Your task to perform on an android device: all mails in gmail Image 0: 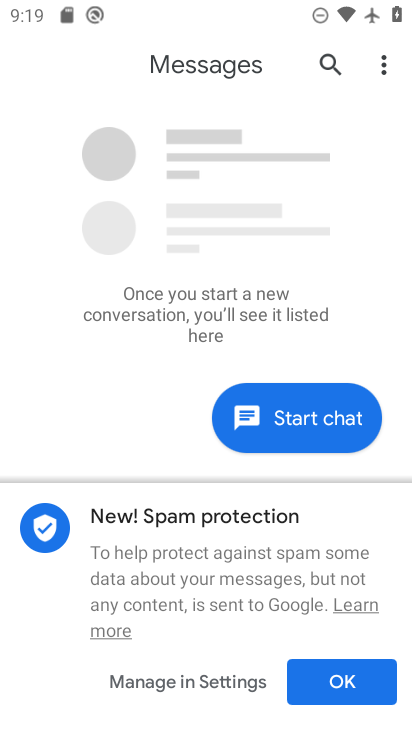
Step 0: press home button
Your task to perform on an android device: all mails in gmail Image 1: 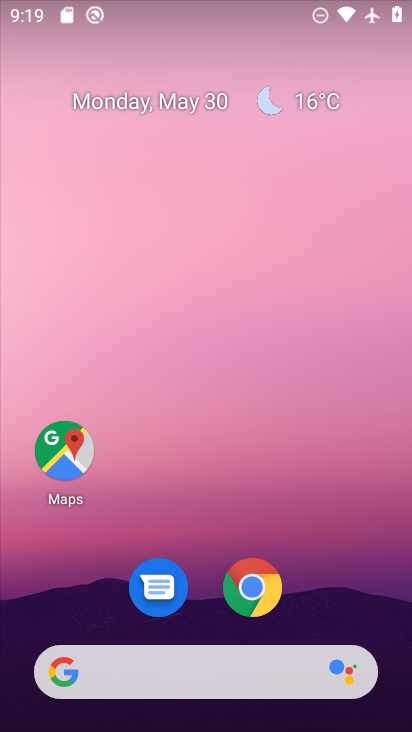
Step 1: drag from (181, 686) to (326, 94)
Your task to perform on an android device: all mails in gmail Image 2: 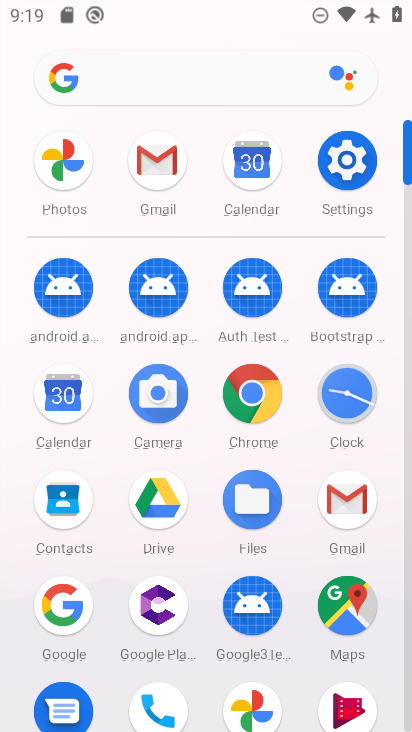
Step 2: click (157, 173)
Your task to perform on an android device: all mails in gmail Image 3: 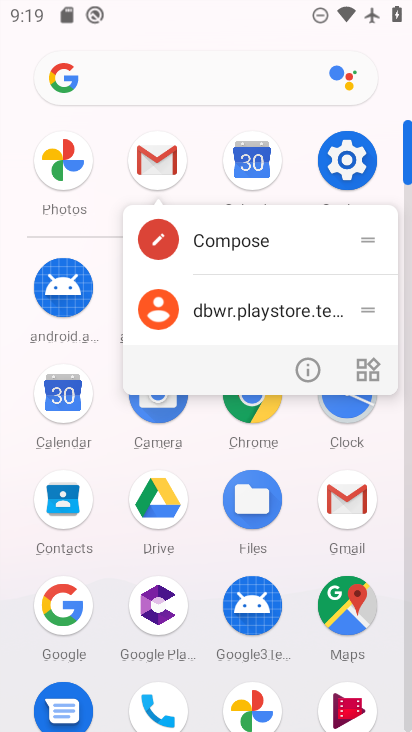
Step 3: click (157, 174)
Your task to perform on an android device: all mails in gmail Image 4: 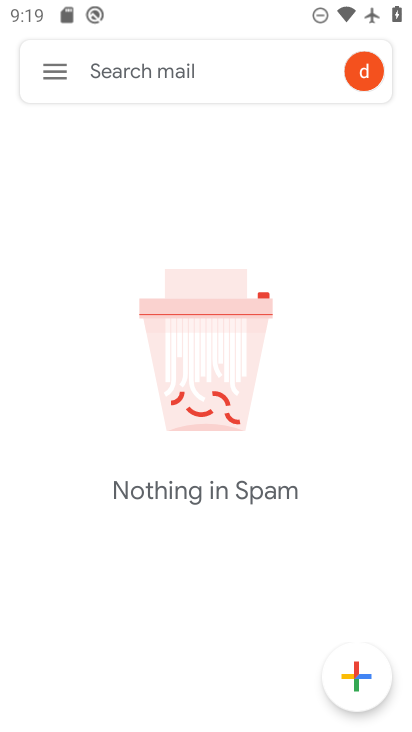
Step 4: click (52, 67)
Your task to perform on an android device: all mails in gmail Image 5: 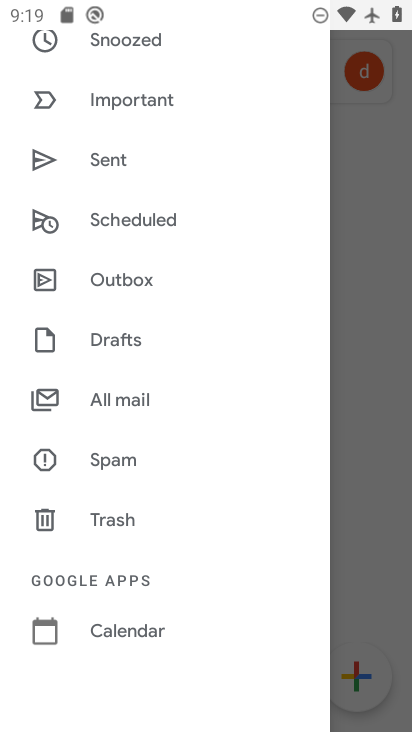
Step 5: click (149, 397)
Your task to perform on an android device: all mails in gmail Image 6: 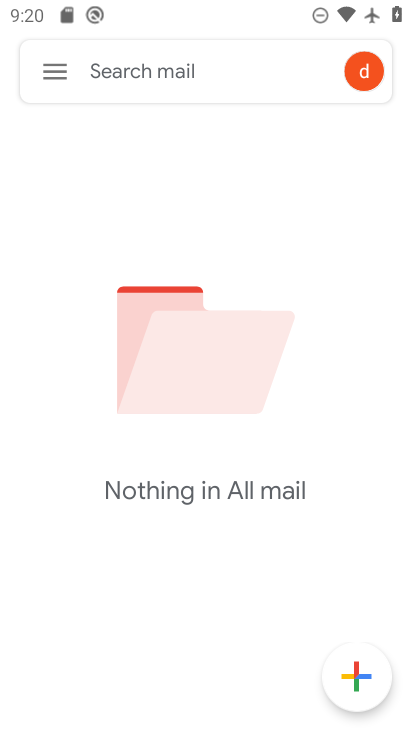
Step 6: task complete